Your task to perform on an android device: turn on javascript in the chrome app Image 0: 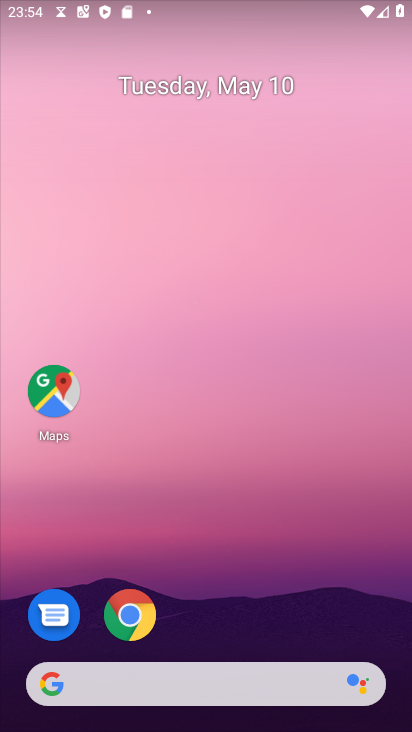
Step 0: click (128, 606)
Your task to perform on an android device: turn on javascript in the chrome app Image 1: 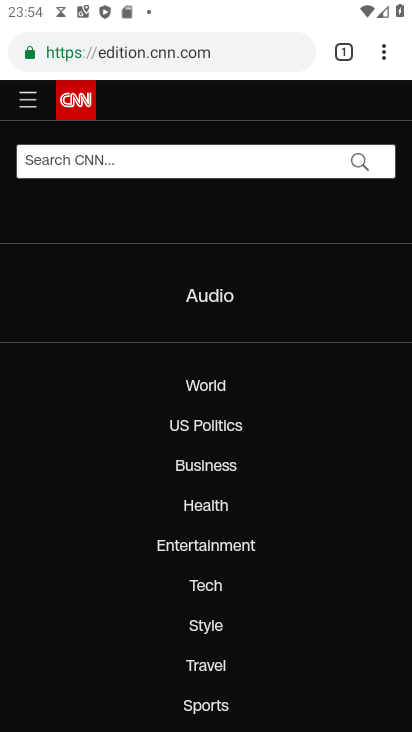
Step 1: click (382, 61)
Your task to perform on an android device: turn on javascript in the chrome app Image 2: 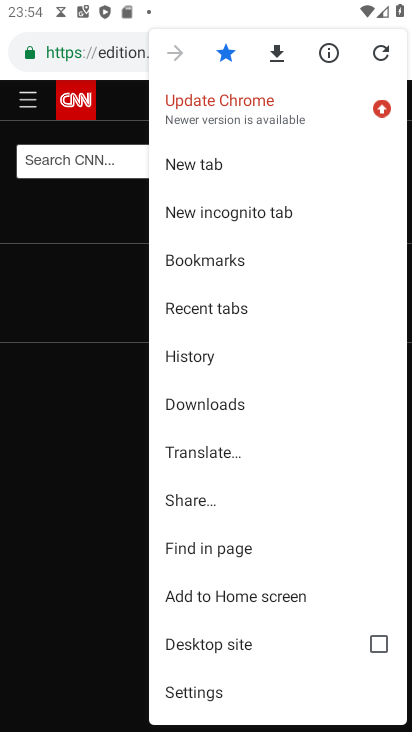
Step 2: click (209, 687)
Your task to perform on an android device: turn on javascript in the chrome app Image 3: 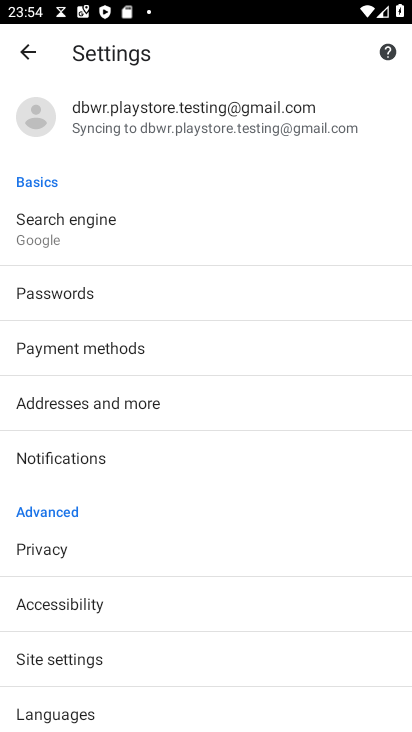
Step 3: drag from (149, 683) to (221, 531)
Your task to perform on an android device: turn on javascript in the chrome app Image 4: 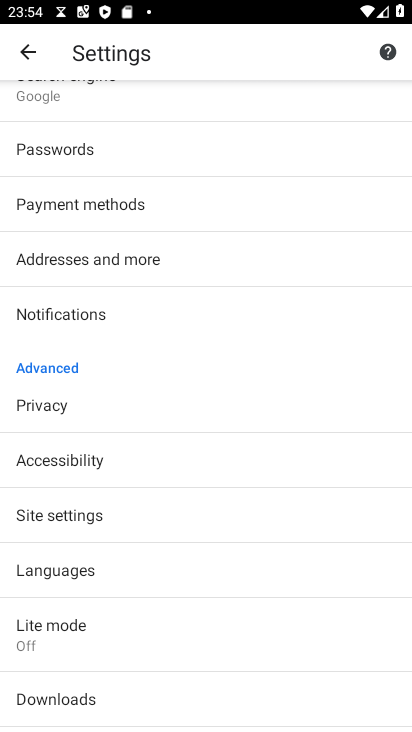
Step 4: click (73, 524)
Your task to perform on an android device: turn on javascript in the chrome app Image 5: 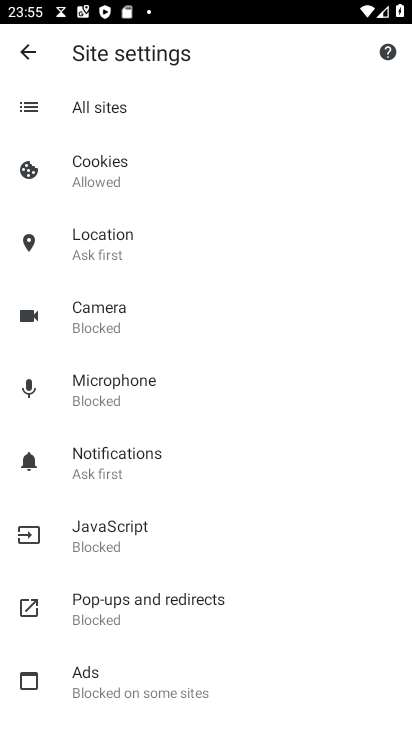
Step 5: click (73, 524)
Your task to perform on an android device: turn on javascript in the chrome app Image 6: 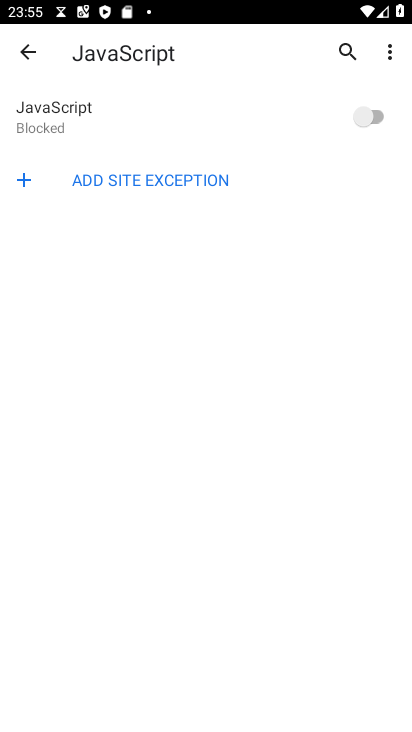
Step 6: click (359, 118)
Your task to perform on an android device: turn on javascript in the chrome app Image 7: 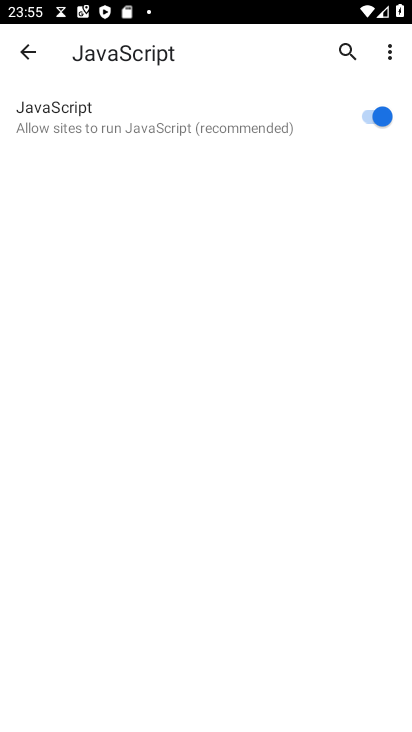
Step 7: task complete